Your task to perform on an android device: Open battery settings Image 0: 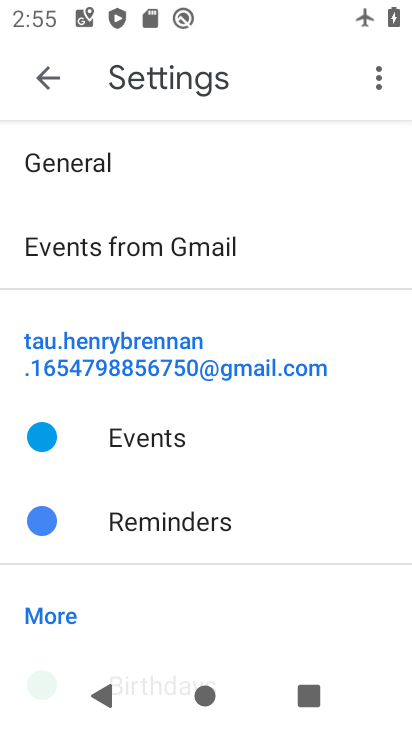
Step 0: press home button
Your task to perform on an android device: Open battery settings Image 1: 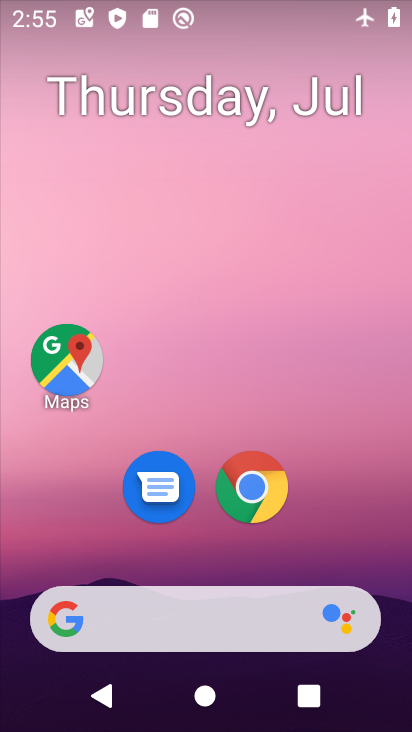
Step 1: drag from (342, 517) to (347, 163)
Your task to perform on an android device: Open battery settings Image 2: 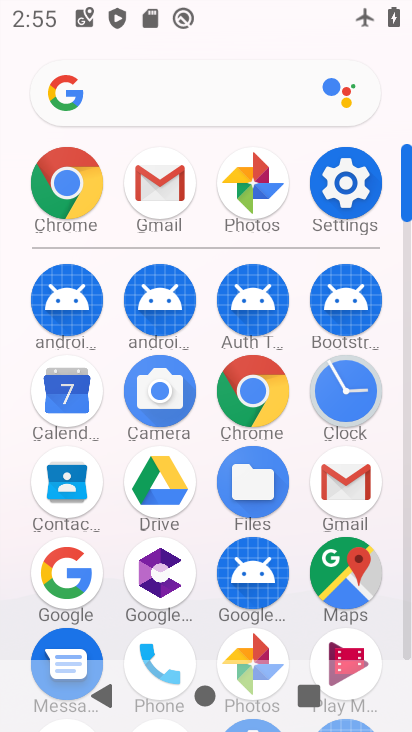
Step 2: click (364, 199)
Your task to perform on an android device: Open battery settings Image 3: 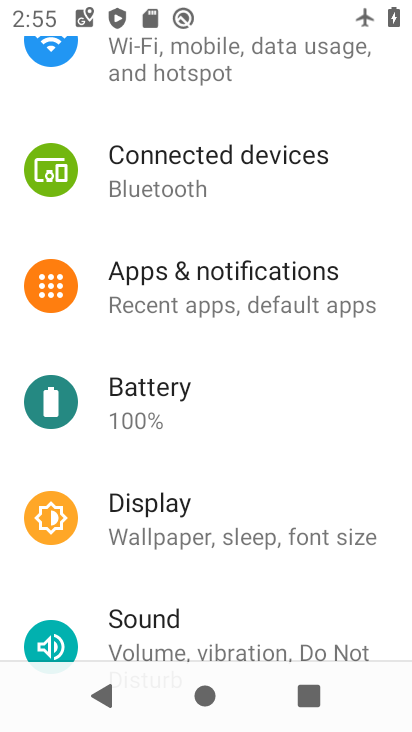
Step 3: drag from (364, 458) to (381, 312)
Your task to perform on an android device: Open battery settings Image 4: 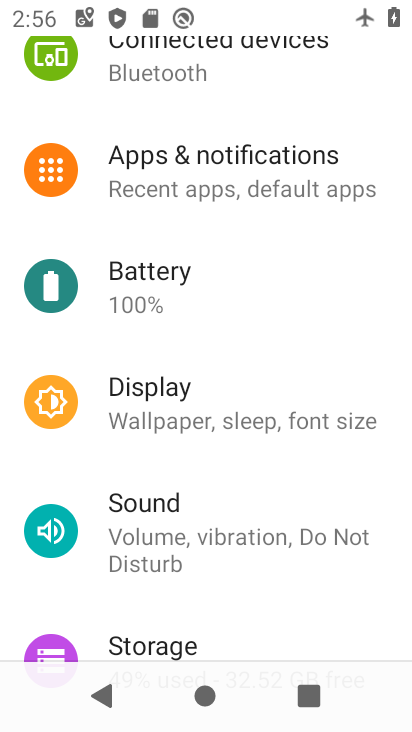
Step 4: drag from (350, 429) to (353, 349)
Your task to perform on an android device: Open battery settings Image 5: 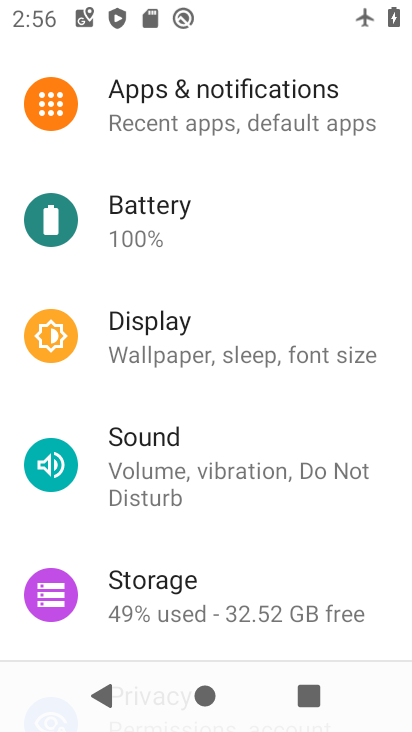
Step 5: drag from (390, 437) to (391, 300)
Your task to perform on an android device: Open battery settings Image 6: 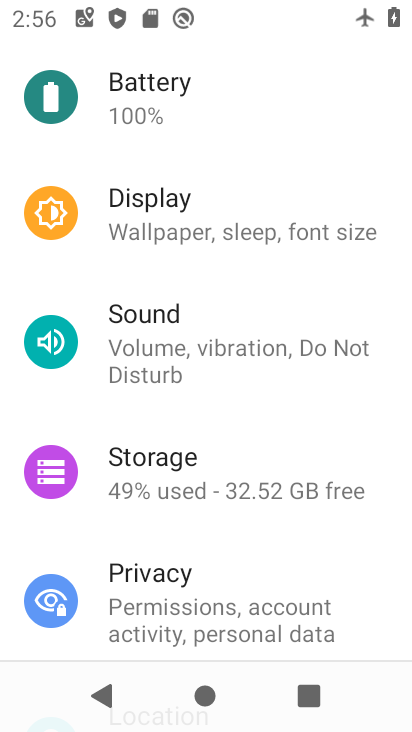
Step 6: drag from (345, 572) to (347, 309)
Your task to perform on an android device: Open battery settings Image 7: 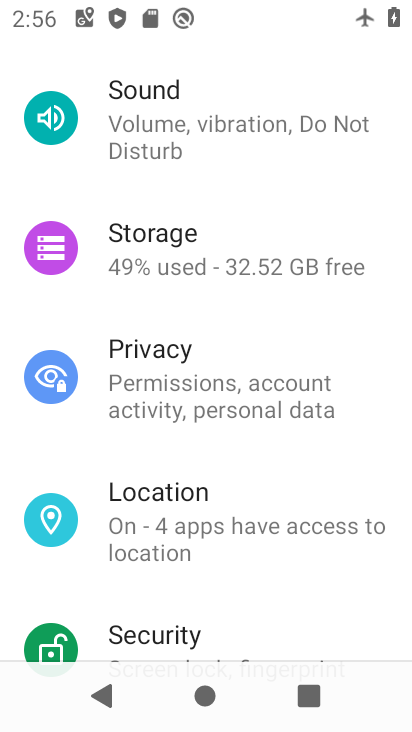
Step 7: drag from (361, 600) to (359, 448)
Your task to perform on an android device: Open battery settings Image 8: 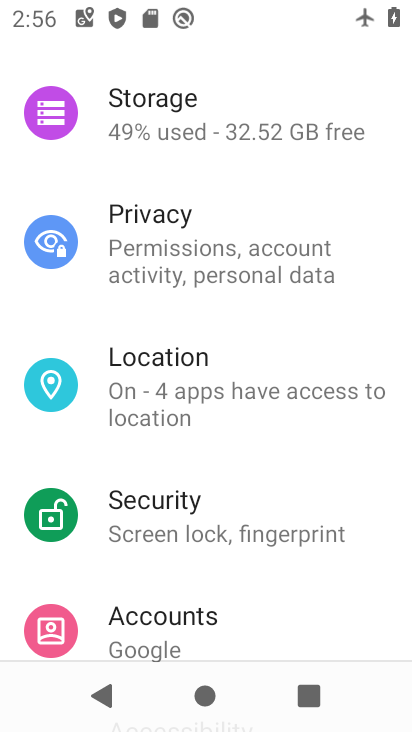
Step 8: drag from (372, 568) to (372, 367)
Your task to perform on an android device: Open battery settings Image 9: 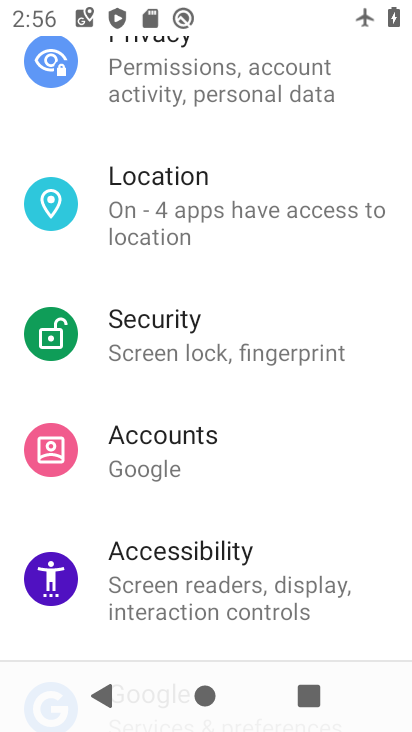
Step 9: drag from (364, 283) to (347, 430)
Your task to perform on an android device: Open battery settings Image 10: 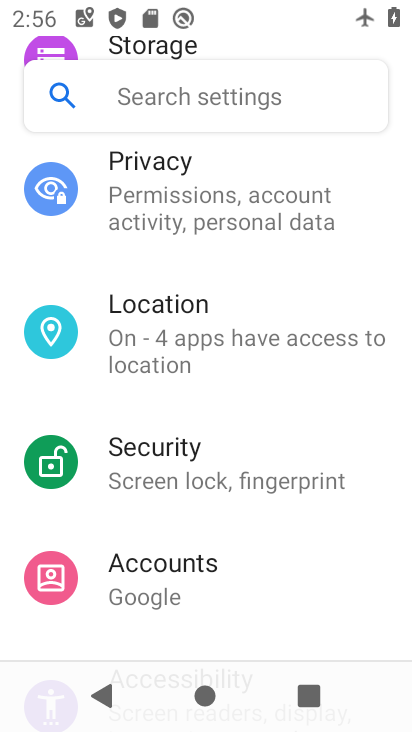
Step 10: drag from (362, 235) to (363, 411)
Your task to perform on an android device: Open battery settings Image 11: 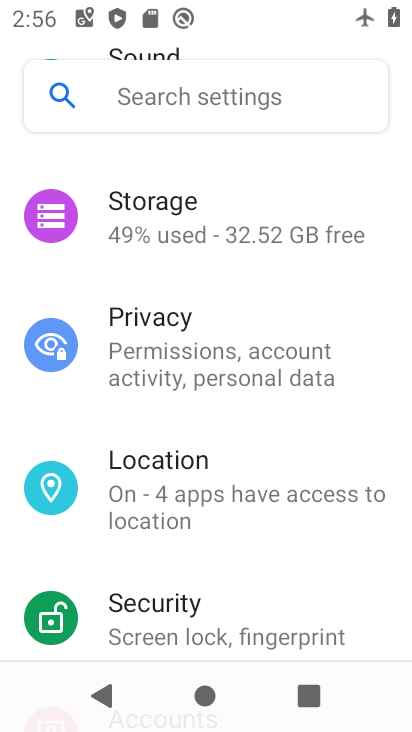
Step 11: drag from (364, 205) to (352, 414)
Your task to perform on an android device: Open battery settings Image 12: 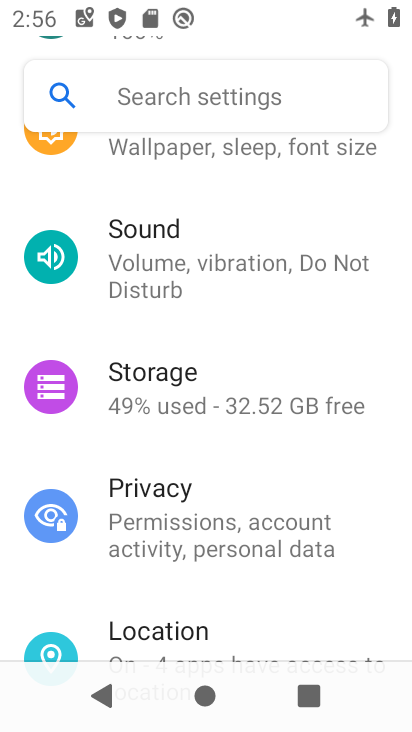
Step 12: drag from (343, 193) to (340, 376)
Your task to perform on an android device: Open battery settings Image 13: 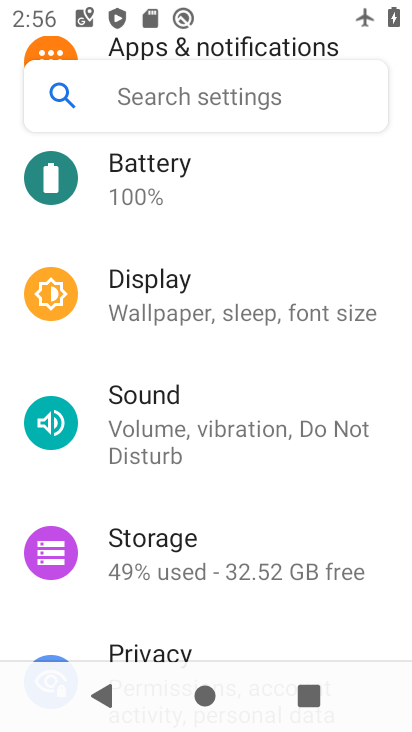
Step 13: drag from (334, 212) to (313, 369)
Your task to perform on an android device: Open battery settings Image 14: 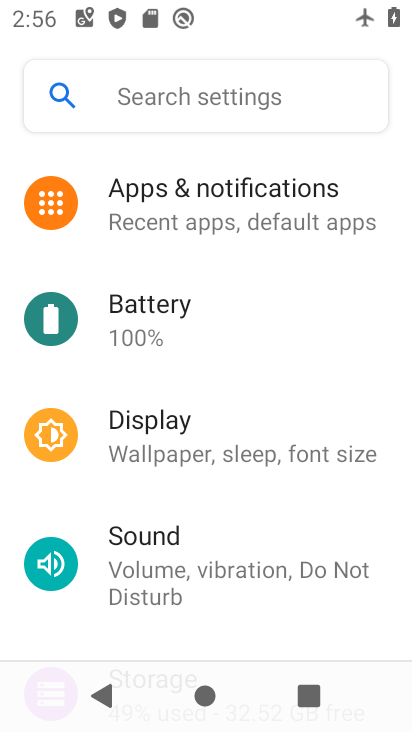
Step 14: click (179, 315)
Your task to perform on an android device: Open battery settings Image 15: 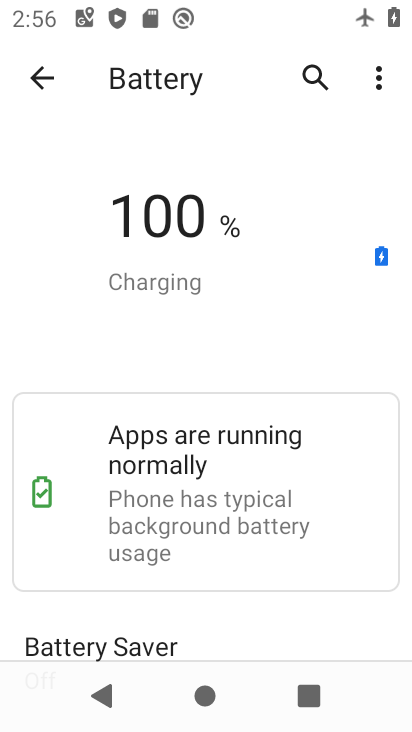
Step 15: task complete